Your task to perform on an android device: install app "Clock" Image 0: 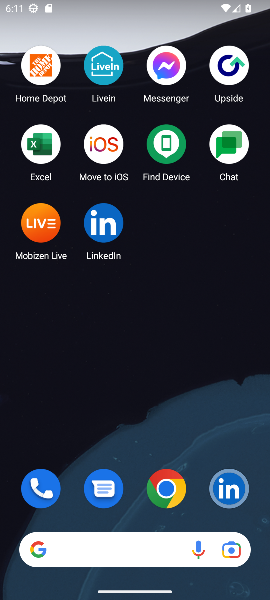
Step 0: drag from (134, 507) to (134, 34)
Your task to perform on an android device: install app "Clock" Image 1: 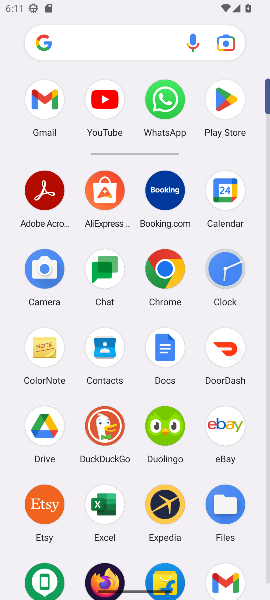
Step 1: click (220, 272)
Your task to perform on an android device: install app "Clock" Image 2: 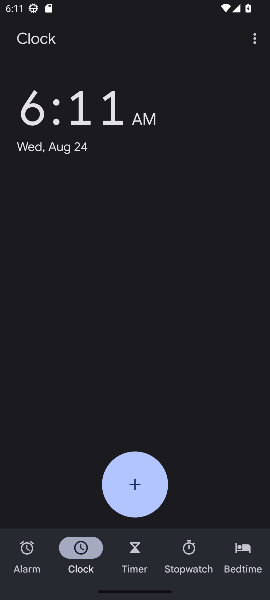
Step 2: task complete